Your task to perform on an android device: Open the Play Movies app and select the watchlist tab. Image 0: 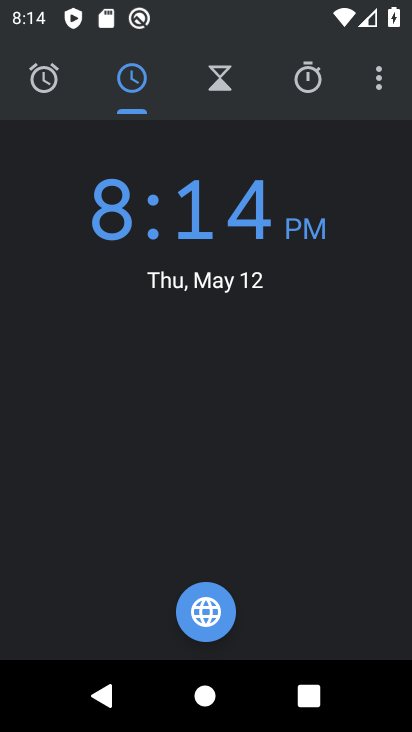
Step 0: press home button
Your task to perform on an android device: Open the Play Movies app and select the watchlist tab. Image 1: 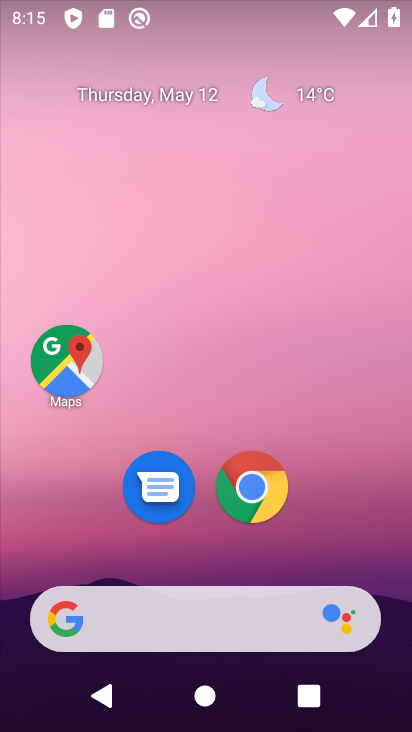
Step 1: drag from (32, 594) to (290, 194)
Your task to perform on an android device: Open the Play Movies app and select the watchlist tab. Image 2: 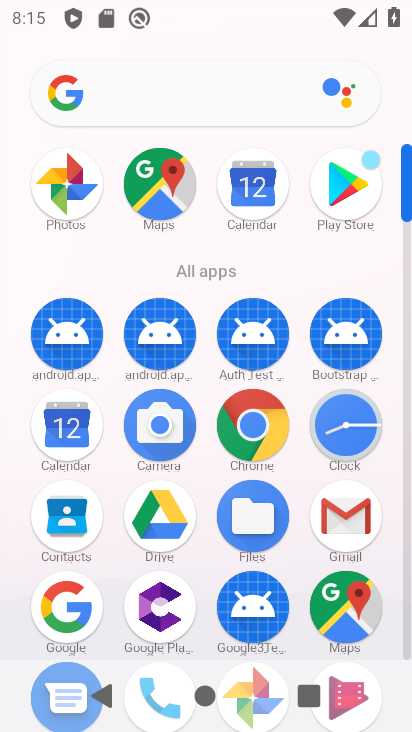
Step 2: drag from (29, 671) to (290, 223)
Your task to perform on an android device: Open the Play Movies app and select the watchlist tab. Image 3: 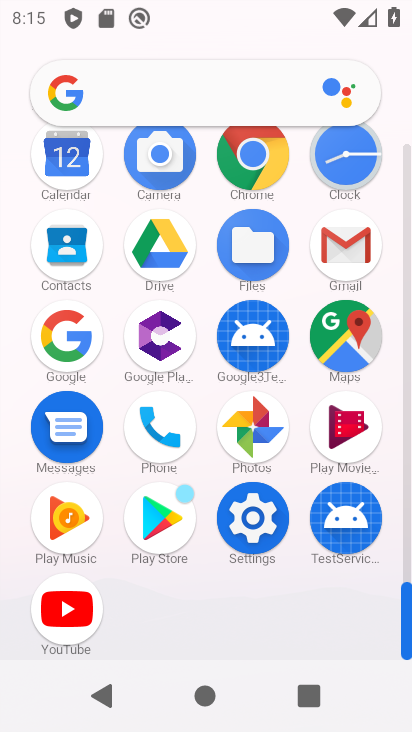
Step 3: click (350, 426)
Your task to perform on an android device: Open the Play Movies app and select the watchlist tab. Image 4: 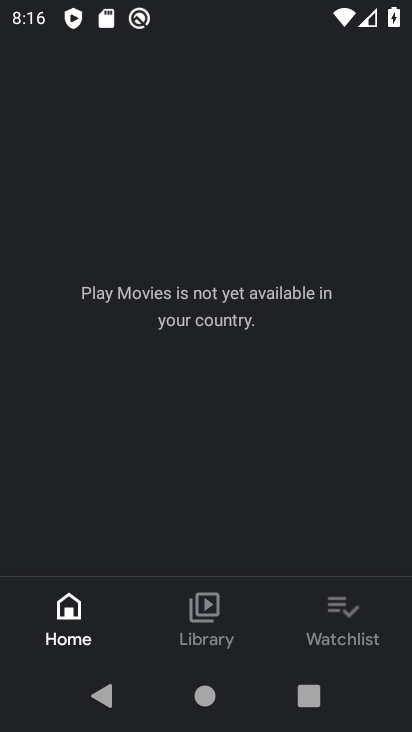
Step 4: click (324, 607)
Your task to perform on an android device: Open the Play Movies app and select the watchlist tab. Image 5: 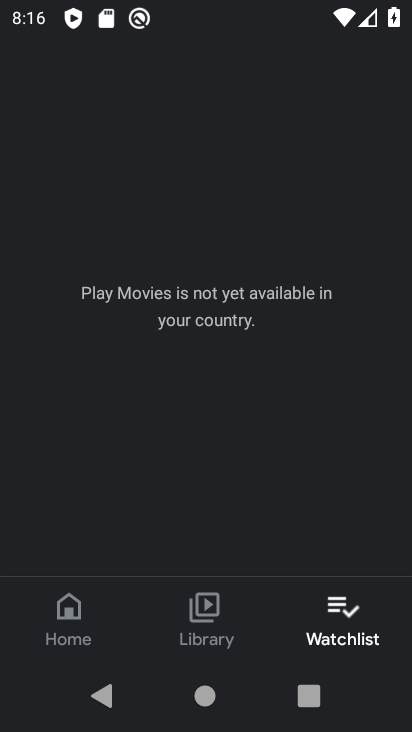
Step 5: task complete